Your task to perform on an android device: What's the weather going to be this weekend? Image 0: 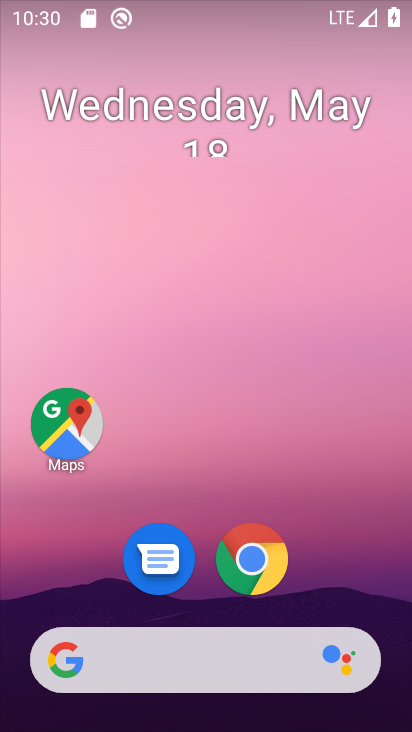
Step 0: click (201, 654)
Your task to perform on an android device: What's the weather going to be this weekend? Image 1: 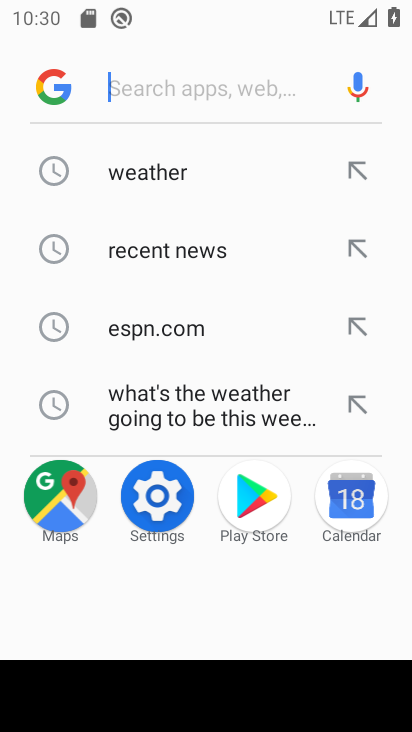
Step 1: click (132, 168)
Your task to perform on an android device: What's the weather going to be this weekend? Image 2: 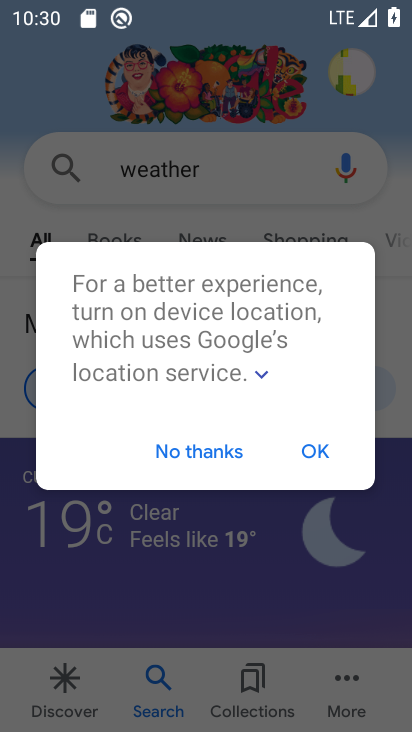
Step 2: click (224, 450)
Your task to perform on an android device: What's the weather going to be this weekend? Image 3: 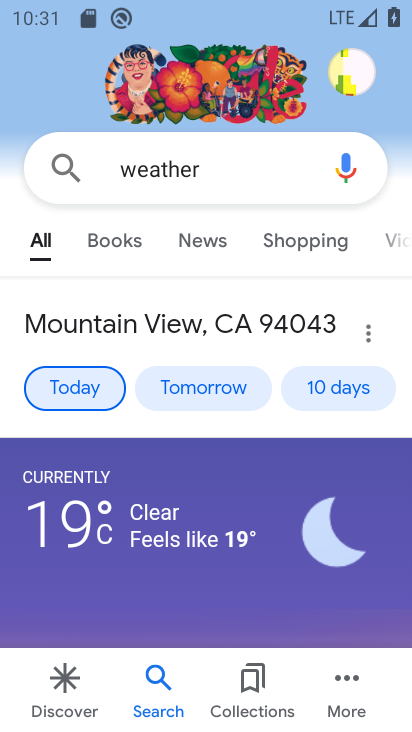
Step 3: click (317, 386)
Your task to perform on an android device: What's the weather going to be this weekend? Image 4: 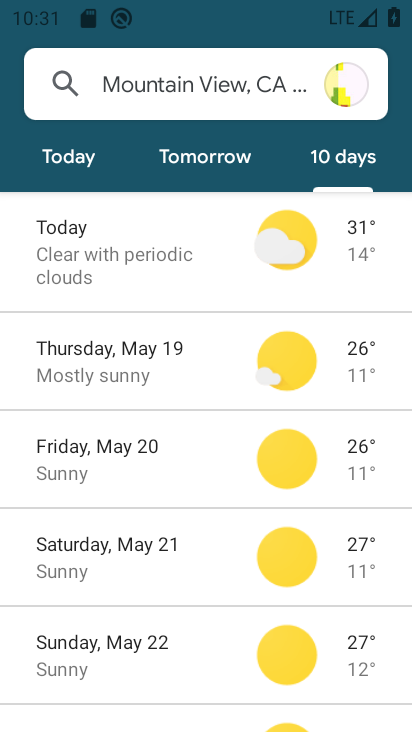
Step 4: task complete